Your task to perform on an android device: open the mobile data screen to see how much data has been used Image 0: 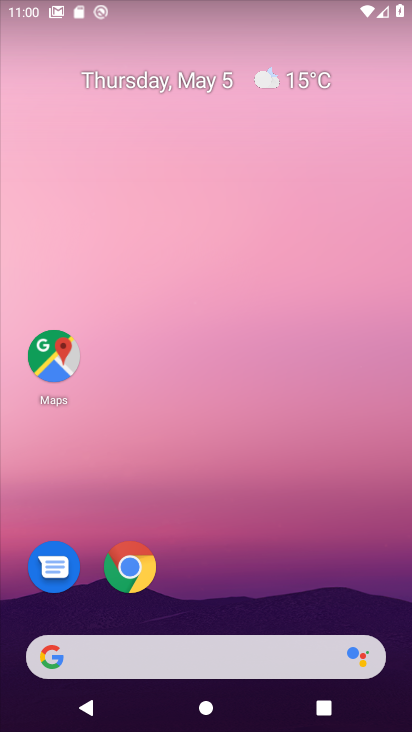
Step 0: drag from (319, 582) to (327, 0)
Your task to perform on an android device: open the mobile data screen to see how much data has been used Image 1: 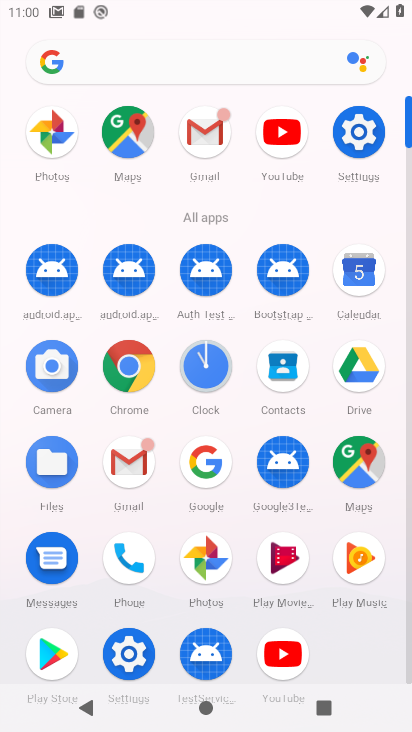
Step 1: click (363, 156)
Your task to perform on an android device: open the mobile data screen to see how much data has been used Image 2: 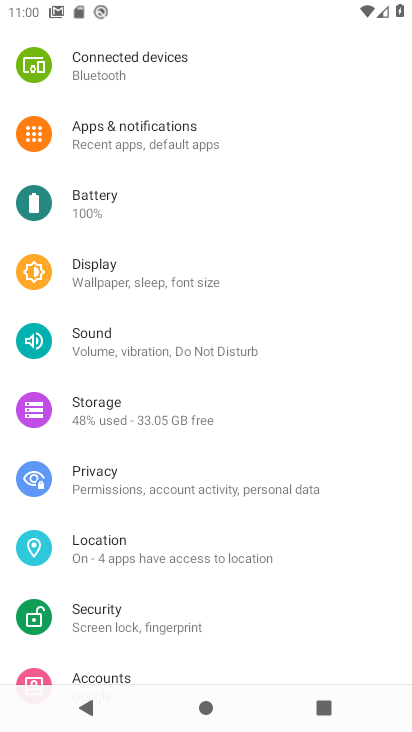
Step 2: drag from (261, 133) to (286, 340)
Your task to perform on an android device: open the mobile data screen to see how much data has been used Image 3: 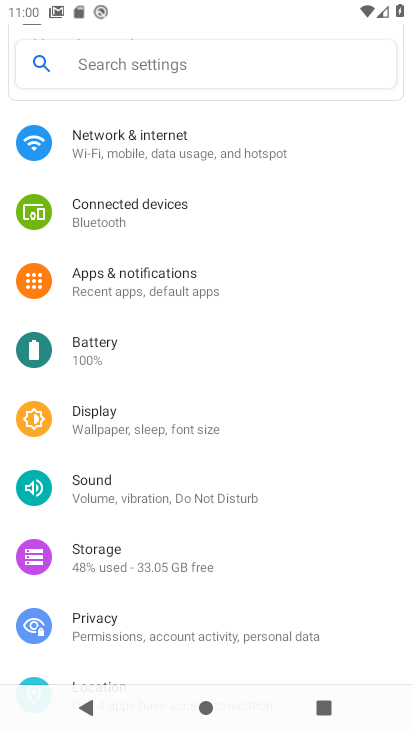
Step 3: click (140, 151)
Your task to perform on an android device: open the mobile data screen to see how much data has been used Image 4: 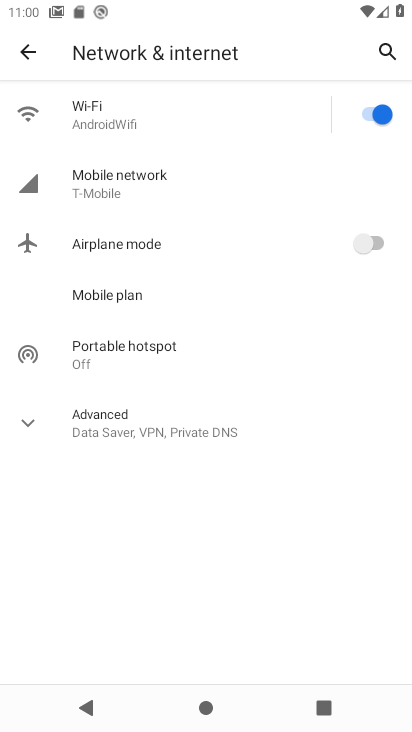
Step 4: click (115, 193)
Your task to perform on an android device: open the mobile data screen to see how much data has been used Image 5: 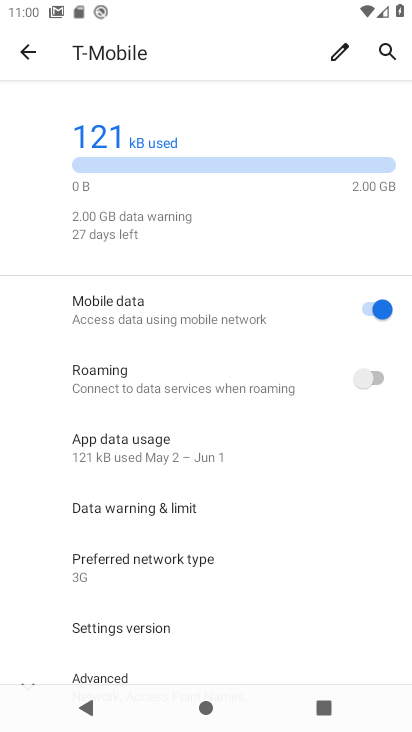
Step 5: click (126, 459)
Your task to perform on an android device: open the mobile data screen to see how much data has been used Image 6: 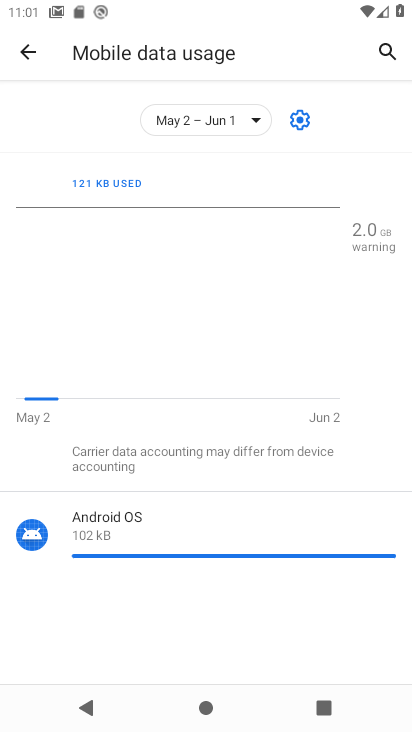
Step 6: task complete